Your task to perform on an android device: Search for seafood restaurants on Google Maps Image 0: 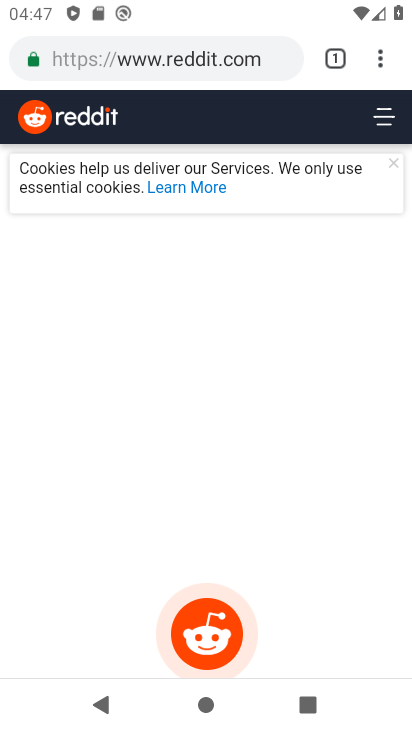
Step 0: press home button
Your task to perform on an android device: Search for seafood restaurants on Google Maps Image 1: 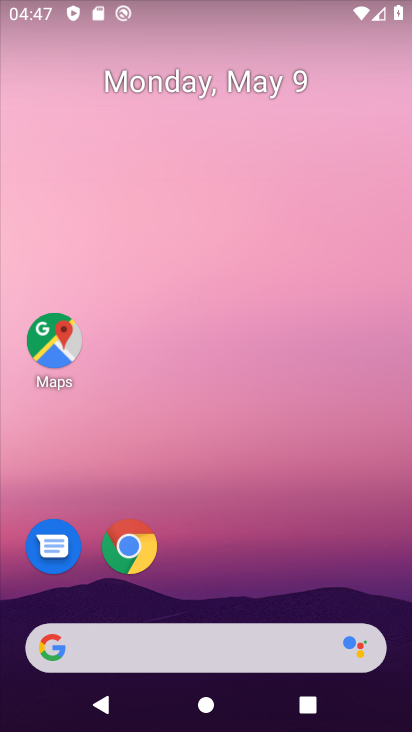
Step 1: drag from (217, 608) to (267, 212)
Your task to perform on an android device: Search for seafood restaurants on Google Maps Image 2: 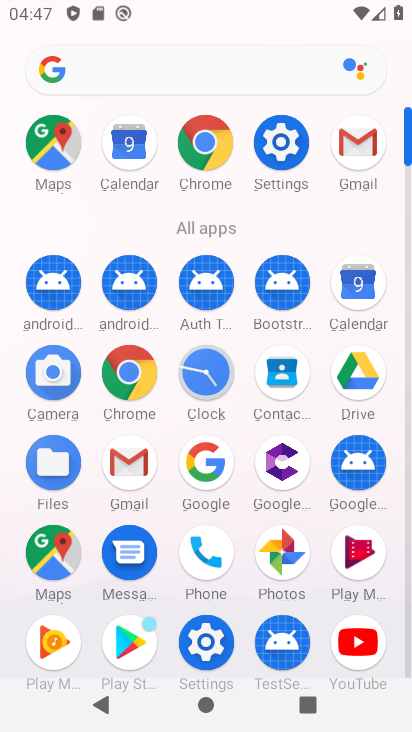
Step 2: click (56, 542)
Your task to perform on an android device: Search for seafood restaurants on Google Maps Image 3: 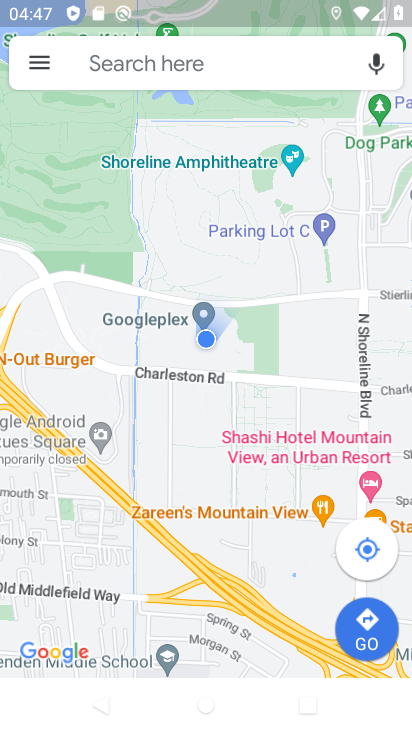
Step 3: click (153, 62)
Your task to perform on an android device: Search for seafood restaurants on Google Maps Image 4: 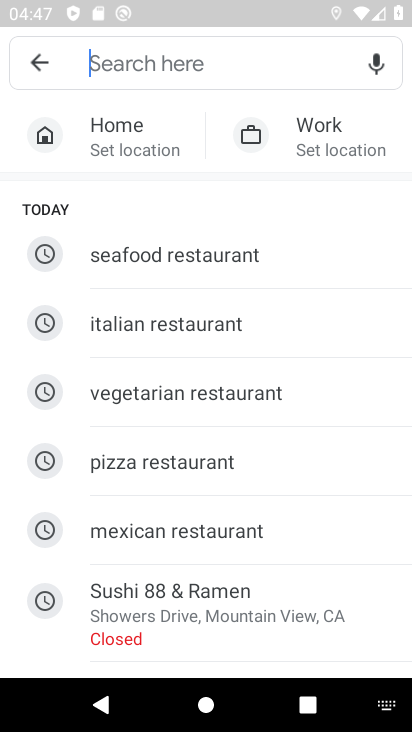
Step 4: type "seafood restaurants"
Your task to perform on an android device: Search for seafood restaurants on Google Maps Image 5: 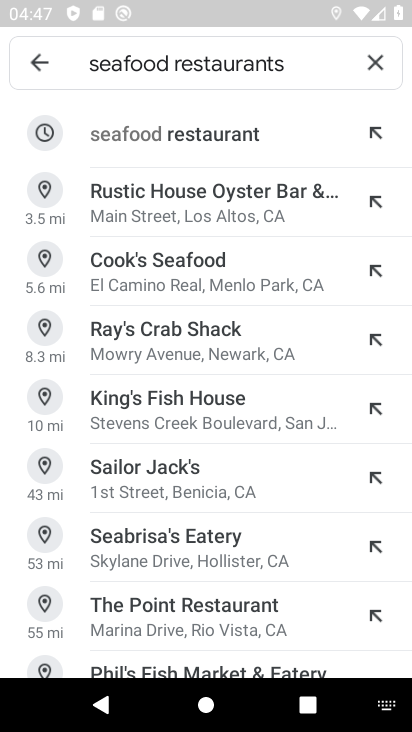
Step 5: click (192, 141)
Your task to perform on an android device: Search for seafood restaurants on Google Maps Image 6: 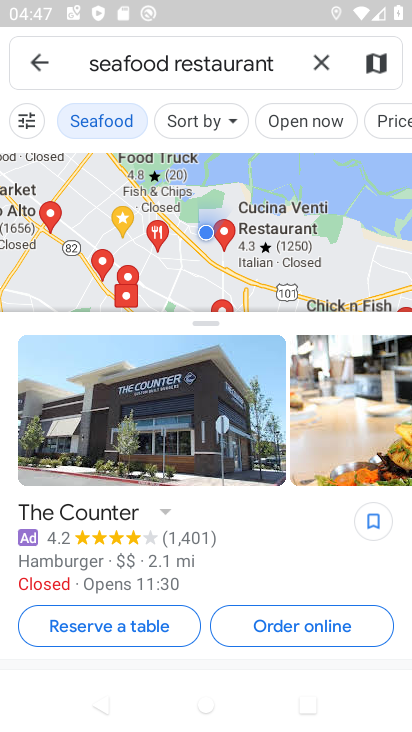
Step 6: task complete